Your task to perform on an android device: Open Wikipedia Image 0: 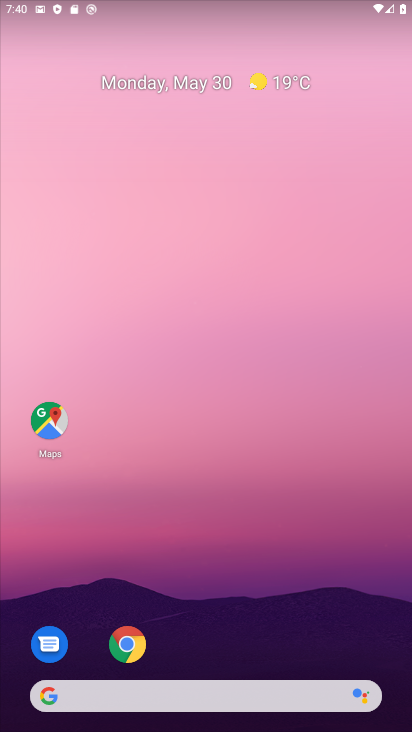
Step 0: click (357, 75)
Your task to perform on an android device: Open Wikipedia Image 1: 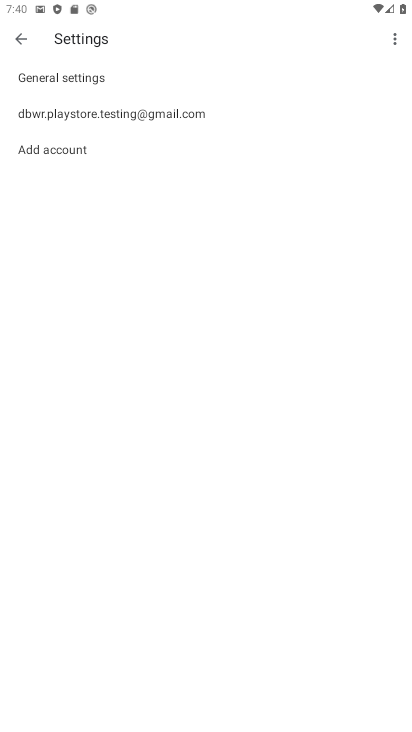
Step 1: press home button
Your task to perform on an android device: Open Wikipedia Image 2: 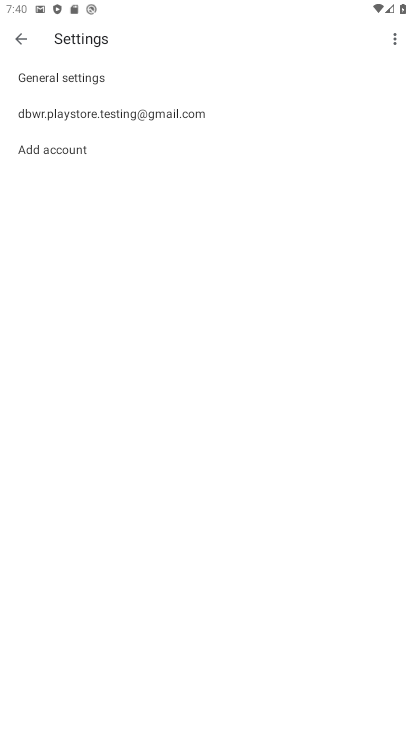
Step 2: press home button
Your task to perform on an android device: Open Wikipedia Image 3: 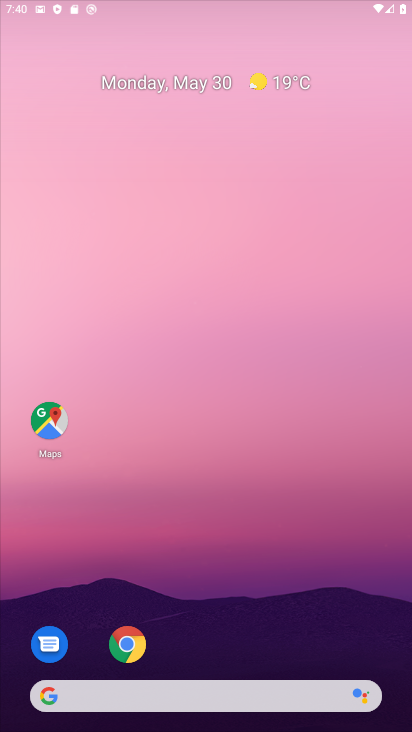
Step 3: drag from (220, 682) to (231, 112)
Your task to perform on an android device: Open Wikipedia Image 4: 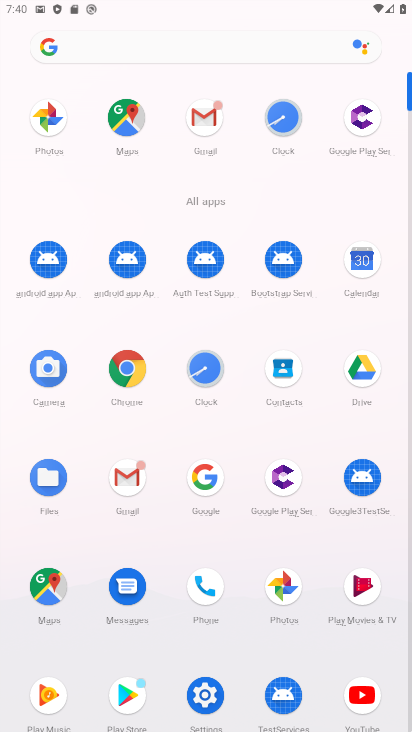
Step 4: drag from (248, 637) to (266, 178)
Your task to perform on an android device: Open Wikipedia Image 5: 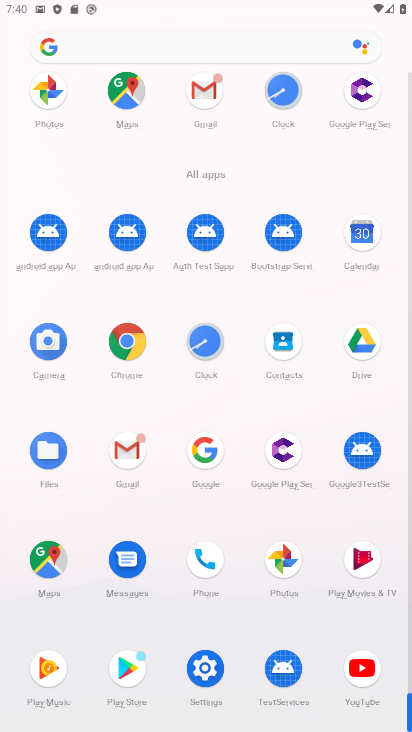
Step 5: click (148, 17)
Your task to perform on an android device: Open Wikipedia Image 6: 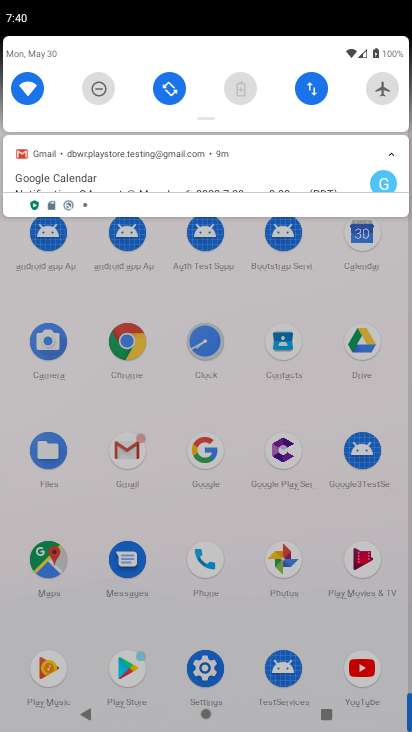
Step 6: click (146, 27)
Your task to perform on an android device: Open Wikipedia Image 7: 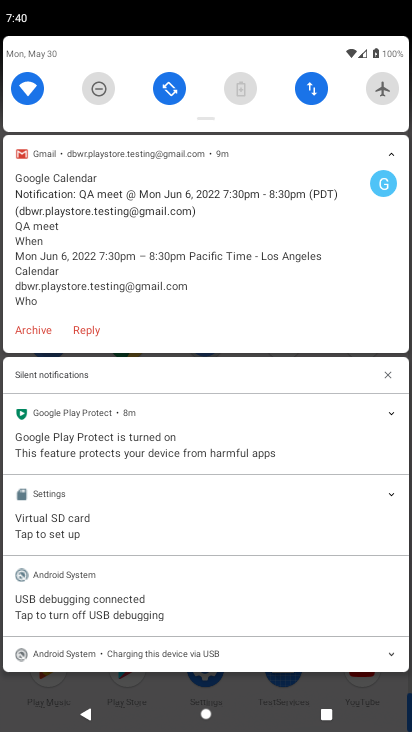
Step 7: press back button
Your task to perform on an android device: Open Wikipedia Image 8: 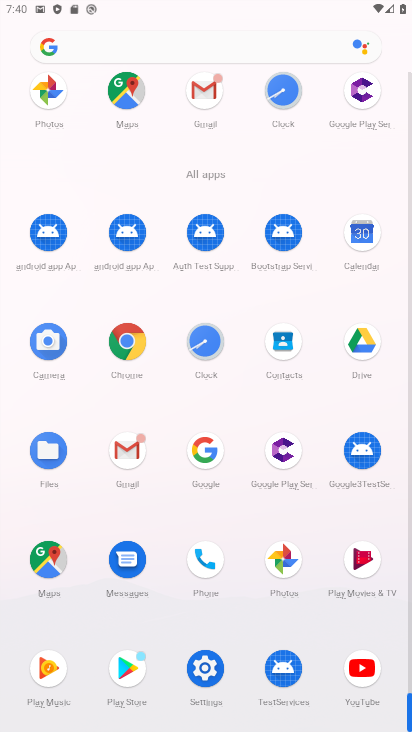
Step 8: click (190, 43)
Your task to perform on an android device: Open Wikipedia Image 9: 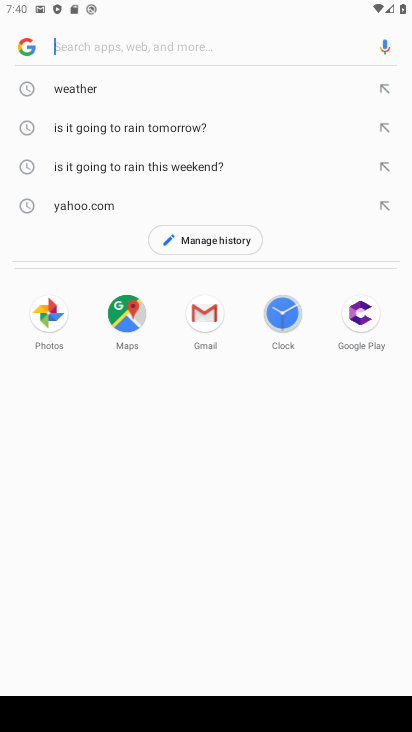
Step 9: click (74, 51)
Your task to perform on an android device: Open Wikipedia Image 10: 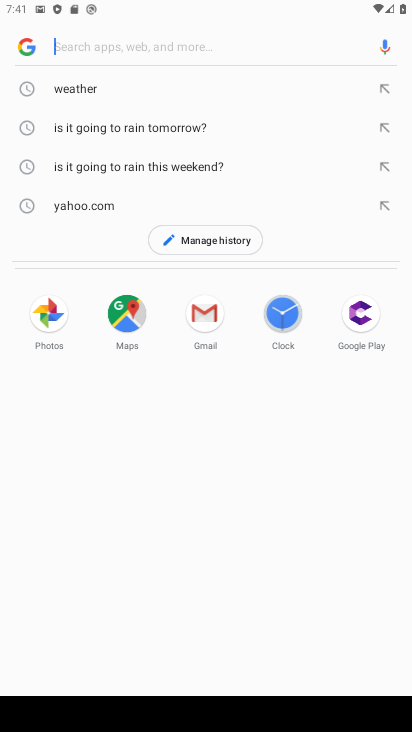
Step 10: type "Wikipedia"
Your task to perform on an android device: Open Wikipedia Image 11: 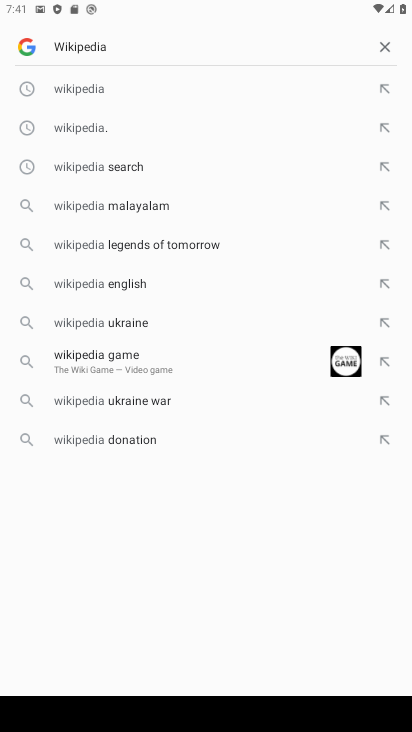
Step 11: click (111, 81)
Your task to perform on an android device: Open Wikipedia Image 12: 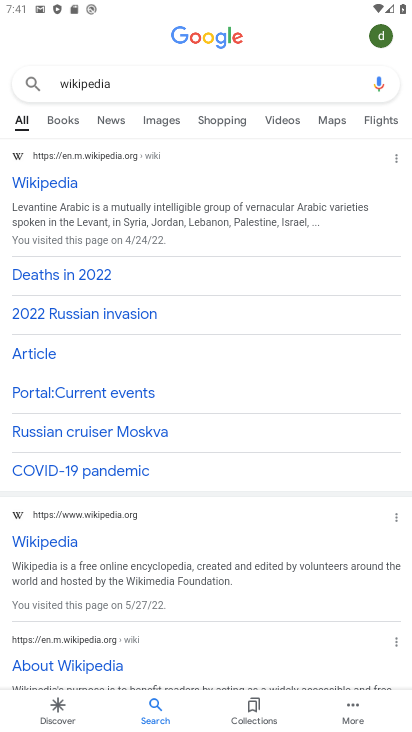
Step 12: drag from (226, 559) to (319, 125)
Your task to perform on an android device: Open Wikipedia Image 13: 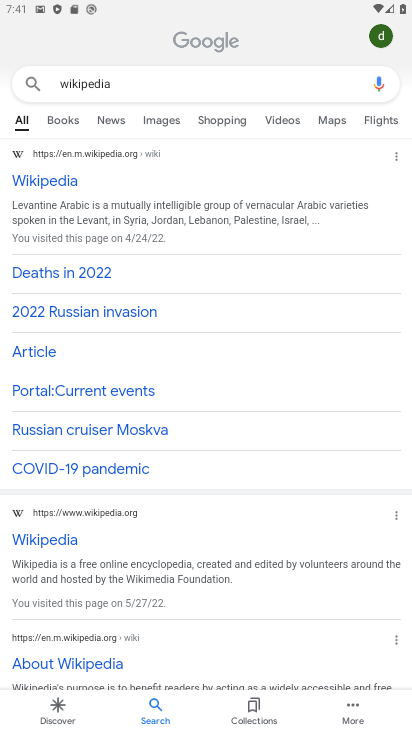
Step 13: drag from (296, 177) to (237, 723)
Your task to perform on an android device: Open Wikipedia Image 14: 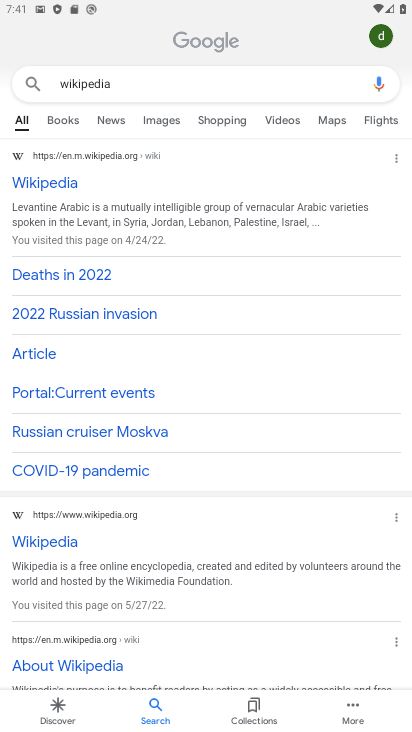
Step 14: click (51, 193)
Your task to perform on an android device: Open Wikipedia Image 15: 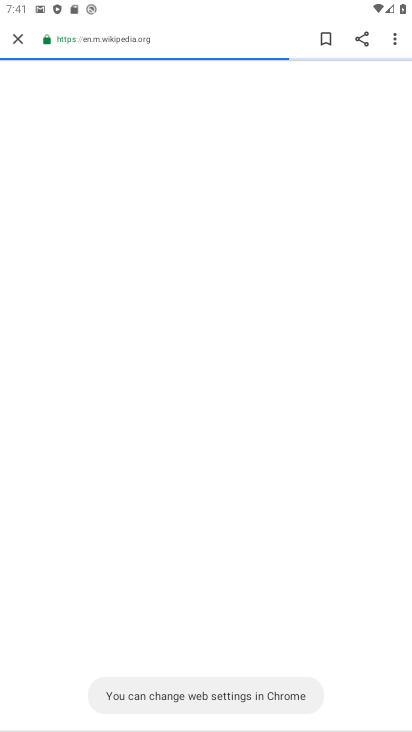
Step 15: task complete